Your task to perform on an android device: Open Amazon Image 0: 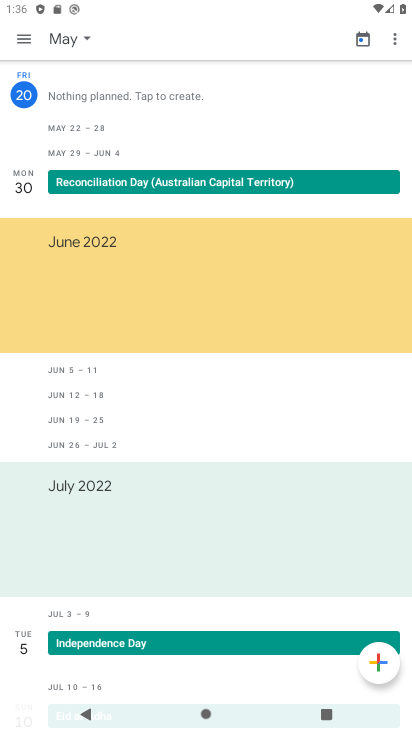
Step 0: press back button
Your task to perform on an android device: Open Amazon Image 1: 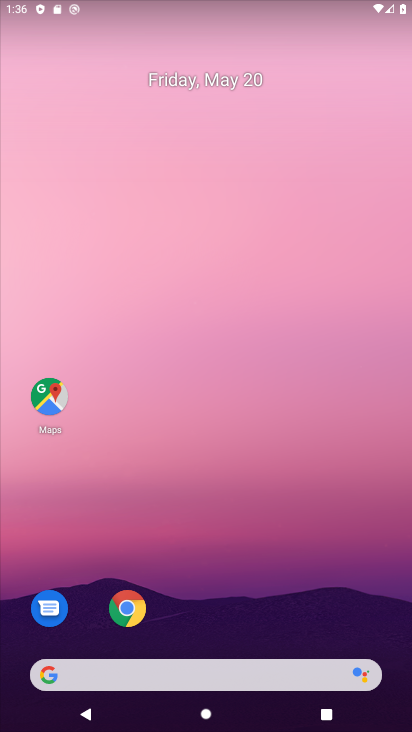
Step 1: click (128, 607)
Your task to perform on an android device: Open Amazon Image 2: 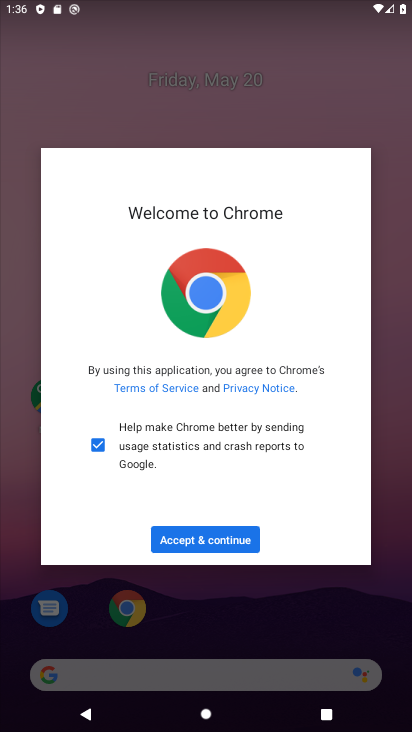
Step 2: click (175, 536)
Your task to perform on an android device: Open Amazon Image 3: 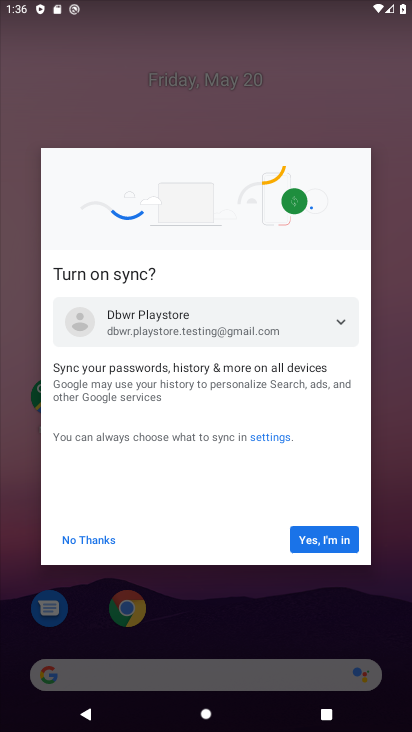
Step 3: click (301, 531)
Your task to perform on an android device: Open Amazon Image 4: 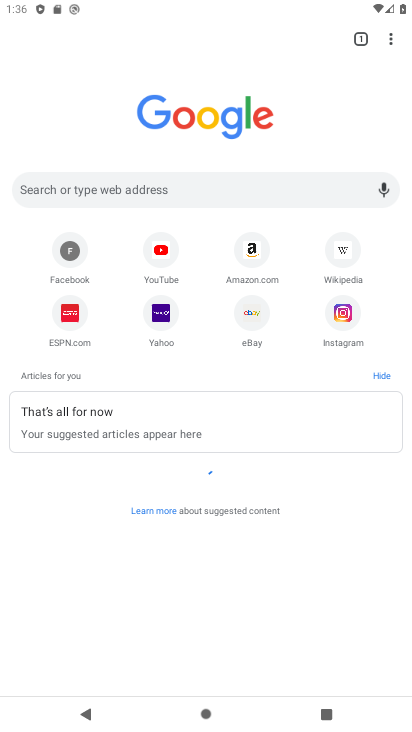
Step 4: click (205, 180)
Your task to perform on an android device: Open Amazon Image 5: 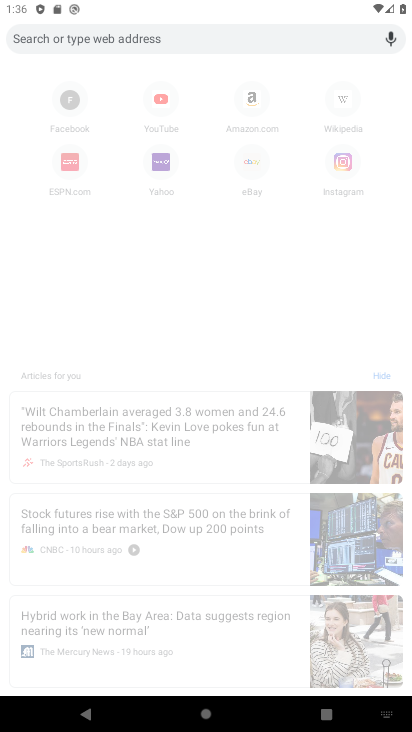
Step 5: type "Amazon"
Your task to perform on an android device: Open Amazon Image 6: 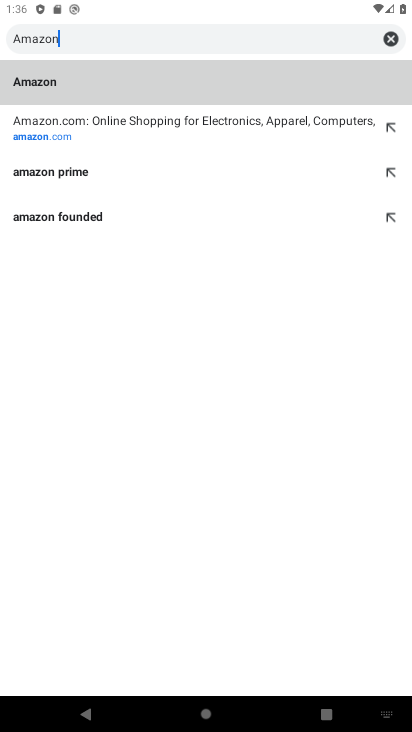
Step 6: click (45, 83)
Your task to perform on an android device: Open Amazon Image 7: 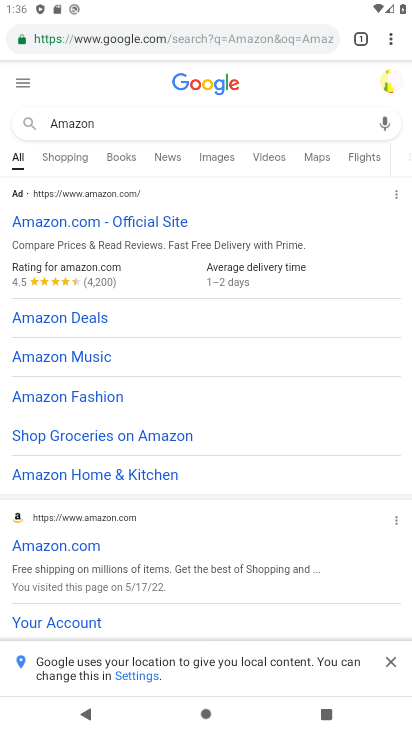
Step 7: click (75, 227)
Your task to perform on an android device: Open Amazon Image 8: 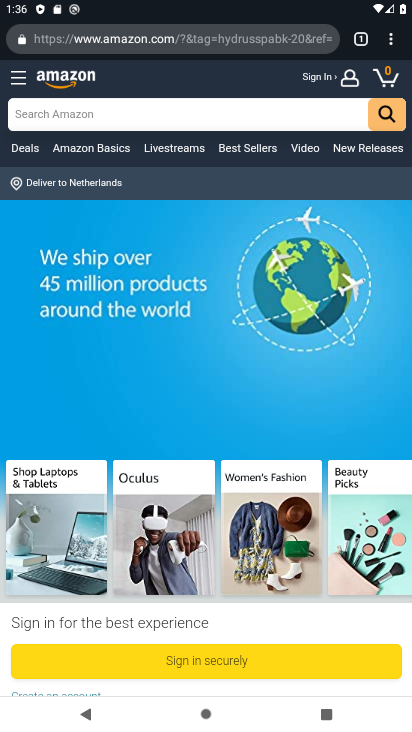
Step 8: task complete